Your task to perform on an android device: Open Android settings Image 0: 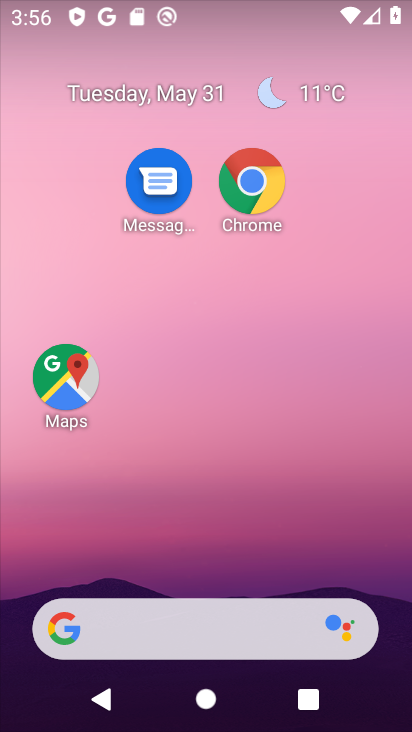
Step 0: drag from (279, 568) to (336, 84)
Your task to perform on an android device: Open Android settings Image 1: 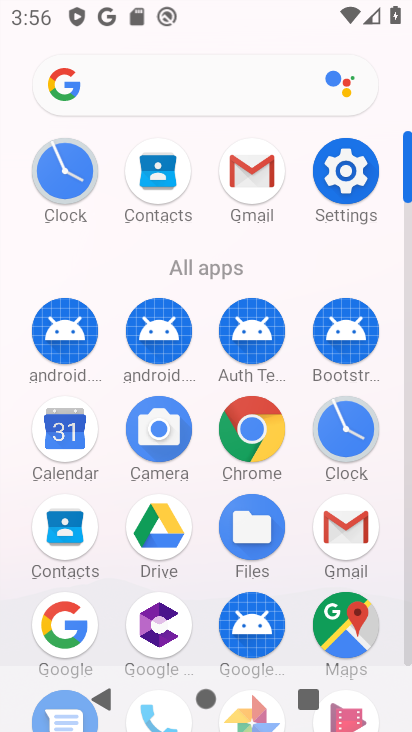
Step 1: click (349, 167)
Your task to perform on an android device: Open Android settings Image 2: 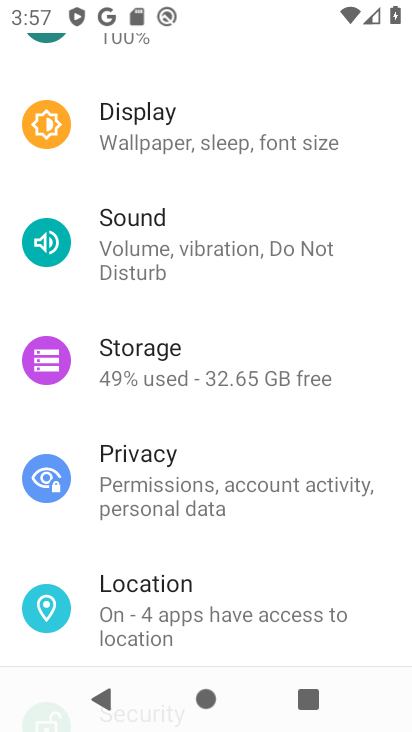
Step 2: task complete